Your task to perform on an android device: turn off picture-in-picture Image 0: 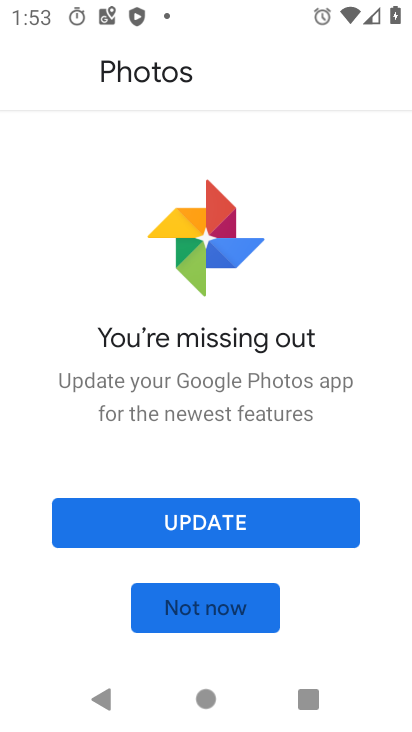
Step 0: press home button
Your task to perform on an android device: turn off picture-in-picture Image 1: 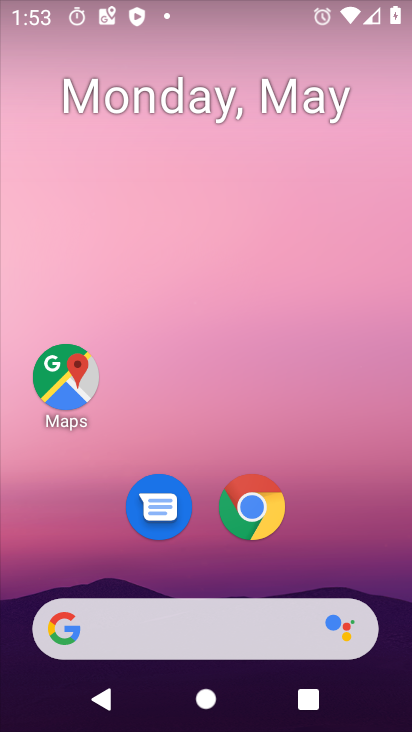
Step 1: drag from (235, 722) to (227, 147)
Your task to perform on an android device: turn off picture-in-picture Image 2: 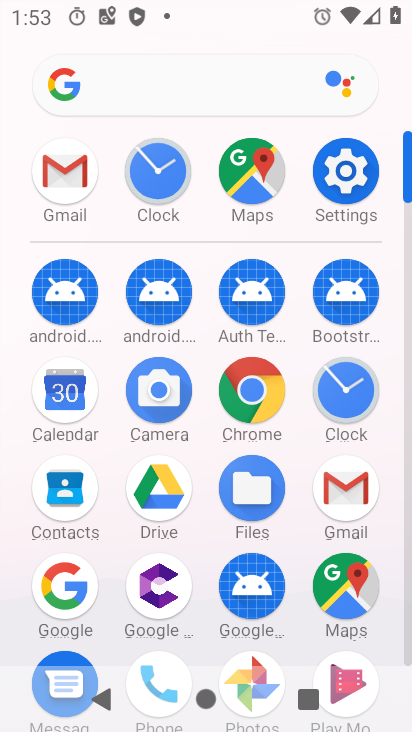
Step 2: click (336, 175)
Your task to perform on an android device: turn off picture-in-picture Image 3: 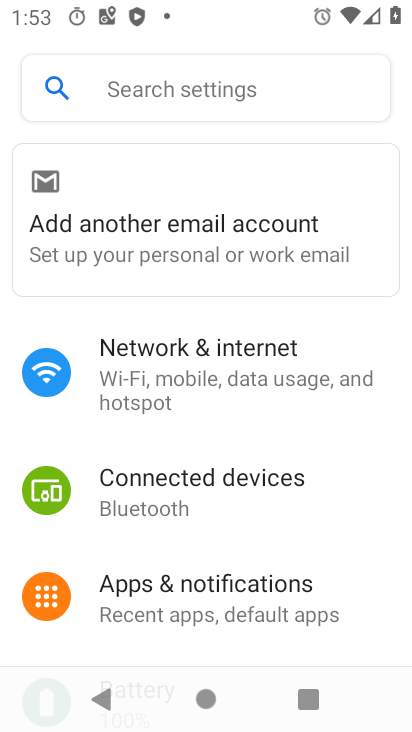
Step 3: click (221, 595)
Your task to perform on an android device: turn off picture-in-picture Image 4: 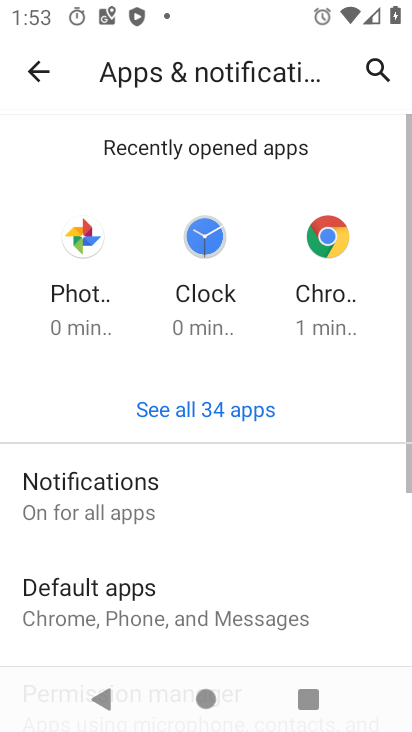
Step 4: drag from (171, 647) to (168, 267)
Your task to perform on an android device: turn off picture-in-picture Image 5: 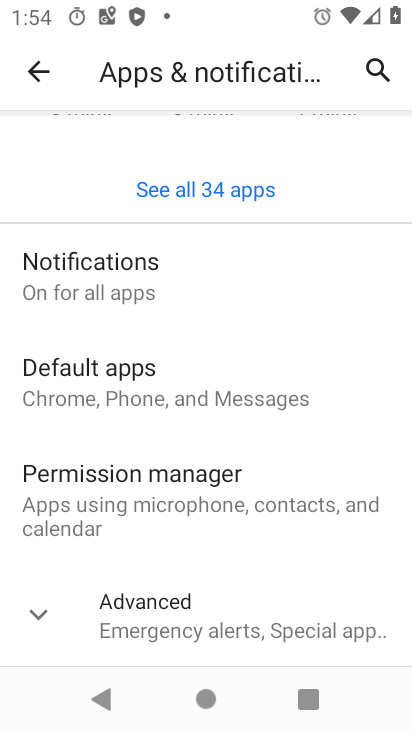
Step 5: click (133, 610)
Your task to perform on an android device: turn off picture-in-picture Image 6: 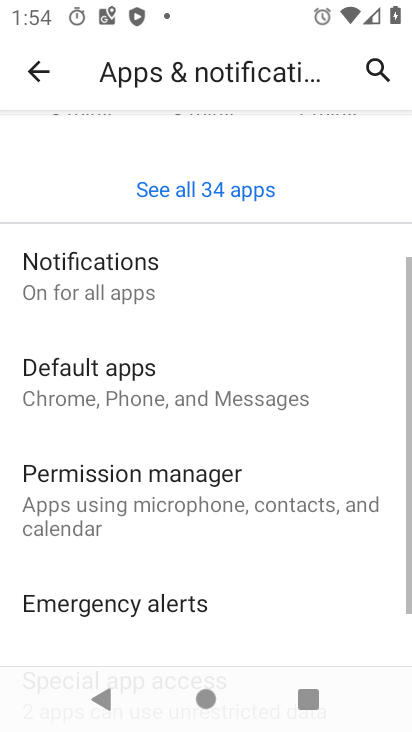
Step 6: drag from (202, 634) to (202, 242)
Your task to perform on an android device: turn off picture-in-picture Image 7: 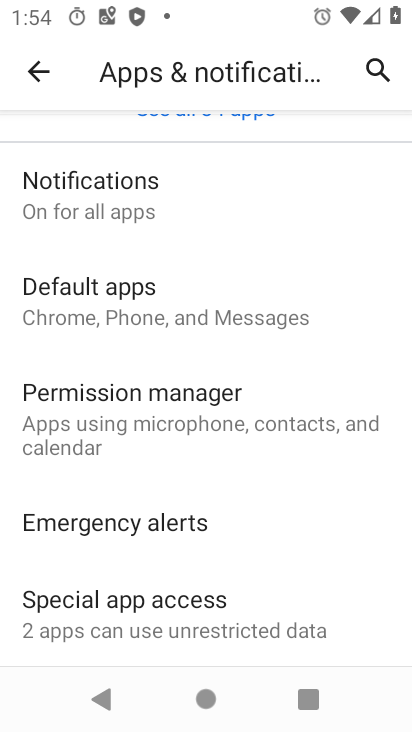
Step 7: click (141, 610)
Your task to perform on an android device: turn off picture-in-picture Image 8: 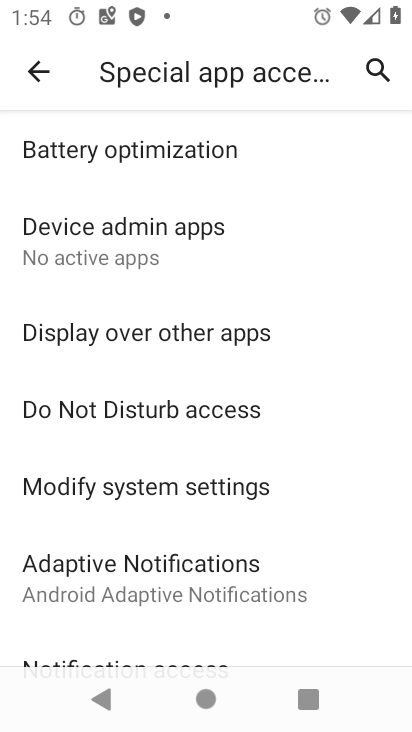
Step 8: drag from (165, 635) to (171, 210)
Your task to perform on an android device: turn off picture-in-picture Image 9: 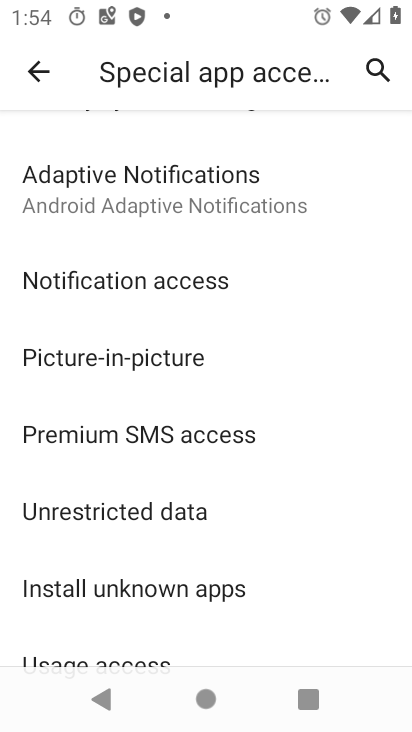
Step 9: click (111, 354)
Your task to perform on an android device: turn off picture-in-picture Image 10: 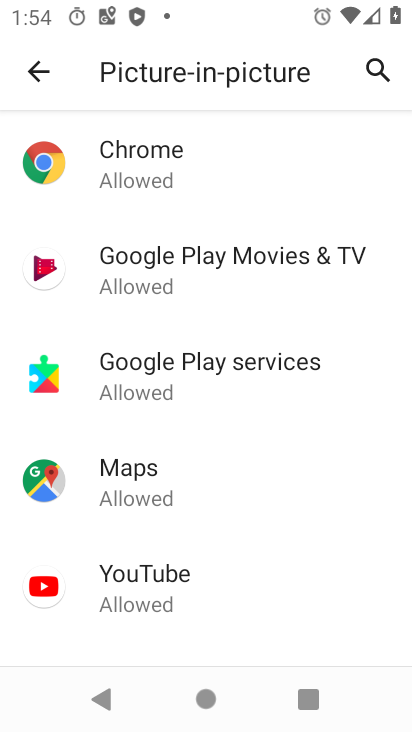
Step 10: click (123, 595)
Your task to perform on an android device: turn off picture-in-picture Image 11: 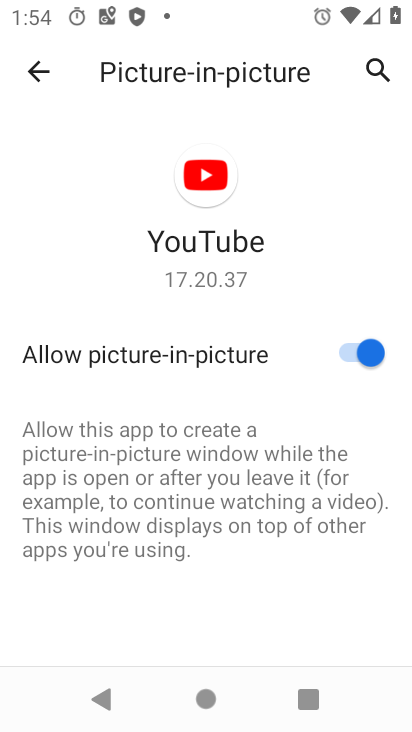
Step 11: click (344, 357)
Your task to perform on an android device: turn off picture-in-picture Image 12: 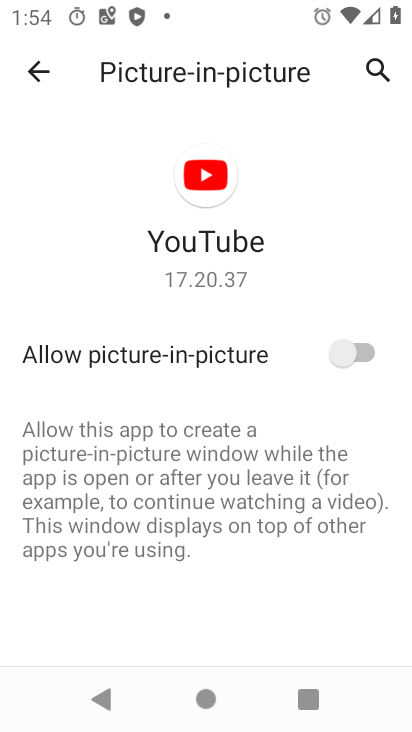
Step 12: task complete